Your task to perform on an android device: turn off smart reply in the gmail app Image 0: 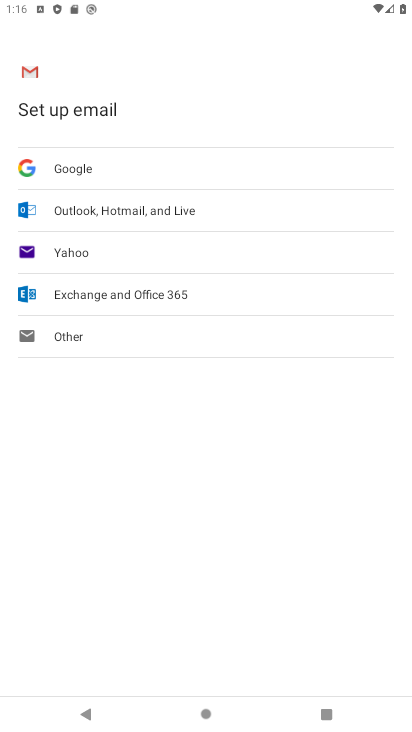
Step 0: press home button
Your task to perform on an android device: turn off smart reply in the gmail app Image 1: 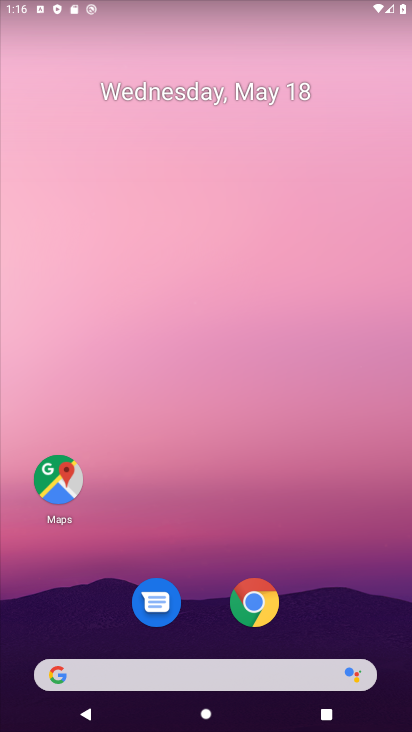
Step 1: drag from (239, 717) to (207, 0)
Your task to perform on an android device: turn off smart reply in the gmail app Image 2: 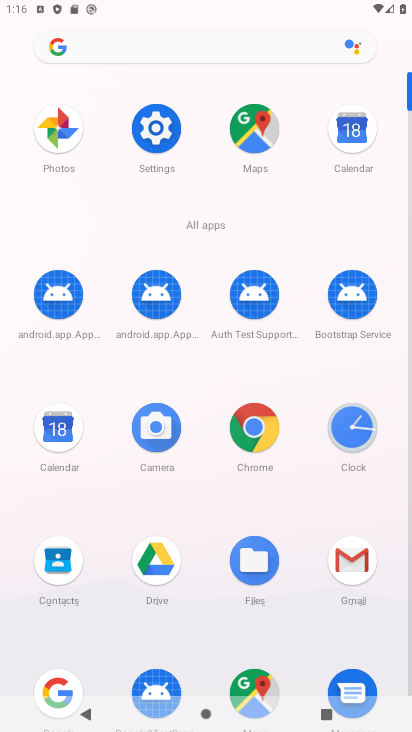
Step 2: click (350, 563)
Your task to perform on an android device: turn off smart reply in the gmail app Image 3: 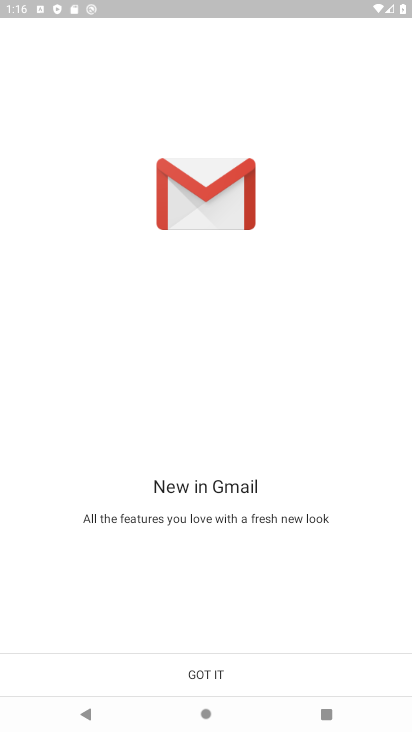
Step 3: click (257, 672)
Your task to perform on an android device: turn off smart reply in the gmail app Image 4: 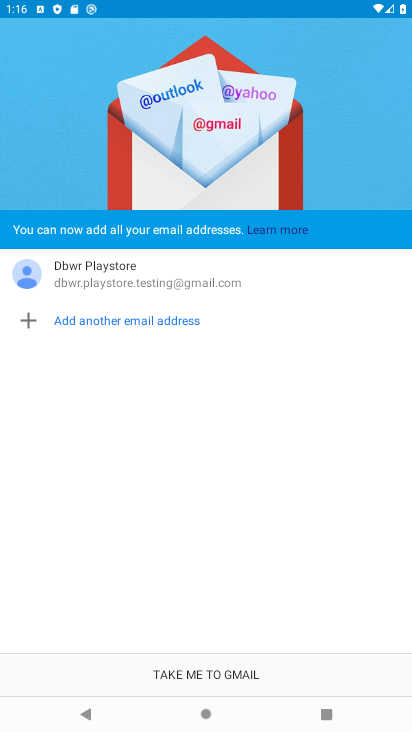
Step 4: click (257, 672)
Your task to perform on an android device: turn off smart reply in the gmail app Image 5: 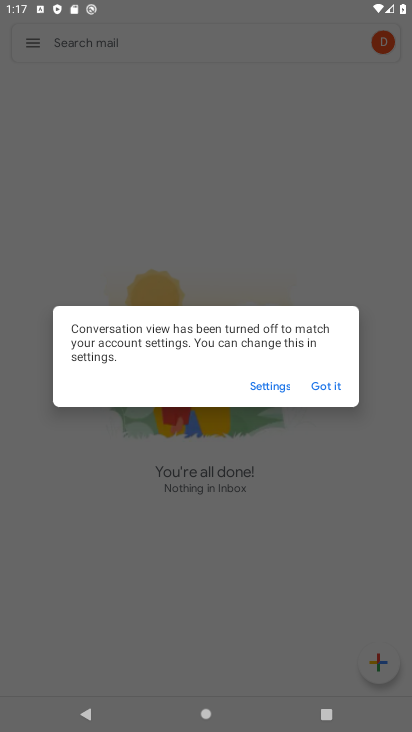
Step 5: click (328, 384)
Your task to perform on an android device: turn off smart reply in the gmail app Image 6: 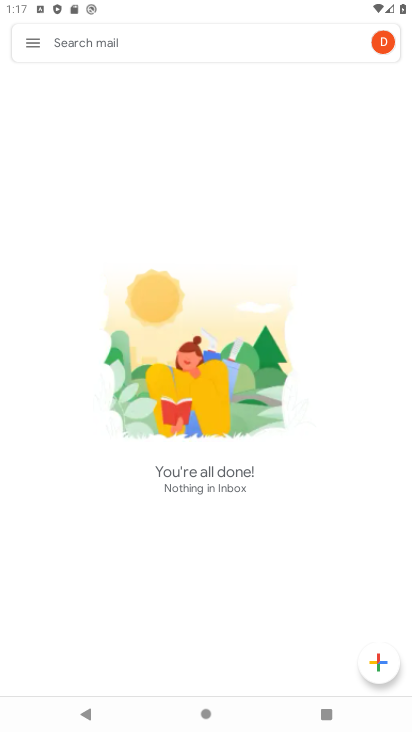
Step 6: click (35, 48)
Your task to perform on an android device: turn off smart reply in the gmail app Image 7: 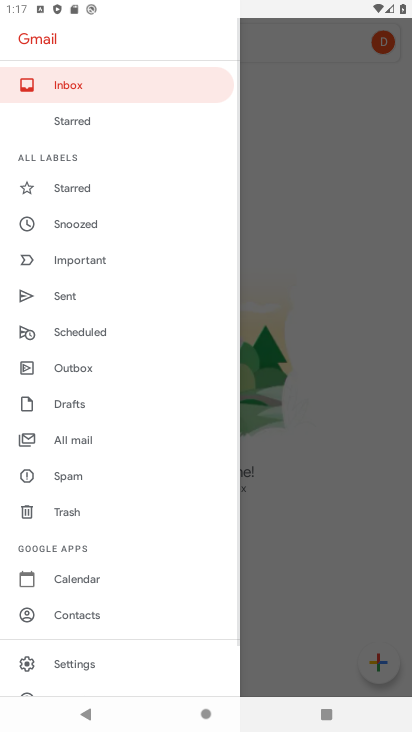
Step 7: click (85, 656)
Your task to perform on an android device: turn off smart reply in the gmail app Image 8: 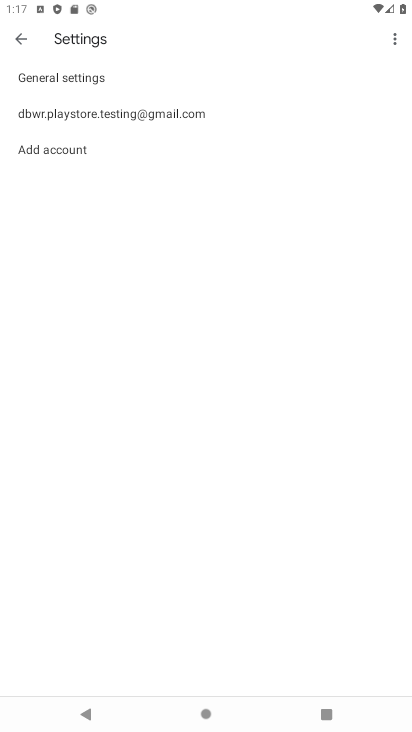
Step 8: click (100, 108)
Your task to perform on an android device: turn off smart reply in the gmail app Image 9: 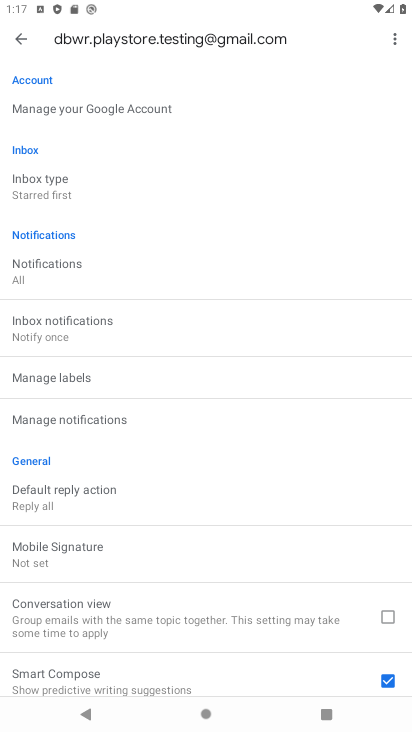
Step 9: drag from (244, 652) to (186, 153)
Your task to perform on an android device: turn off smart reply in the gmail app Image 10: 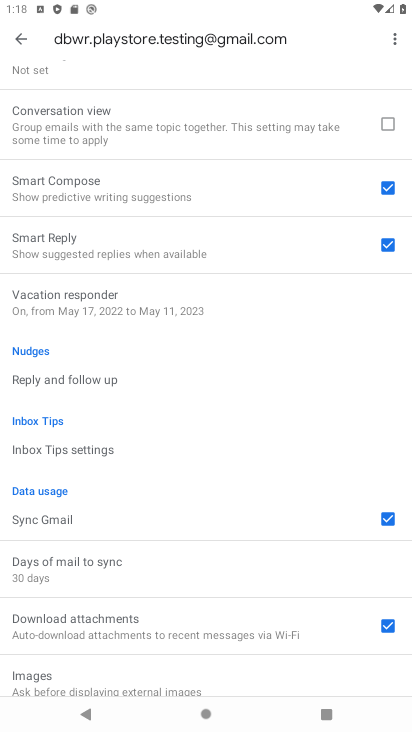
Step 10: click (394, 241)
Your task to perform on an android device: turn off smart reply in the gmail app Image 11: 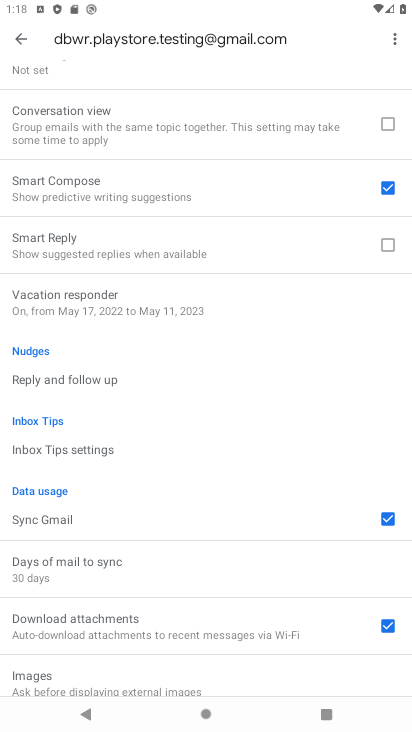
Step 11: task complete